Your task to perform on an android device: turn on location history Image 0: 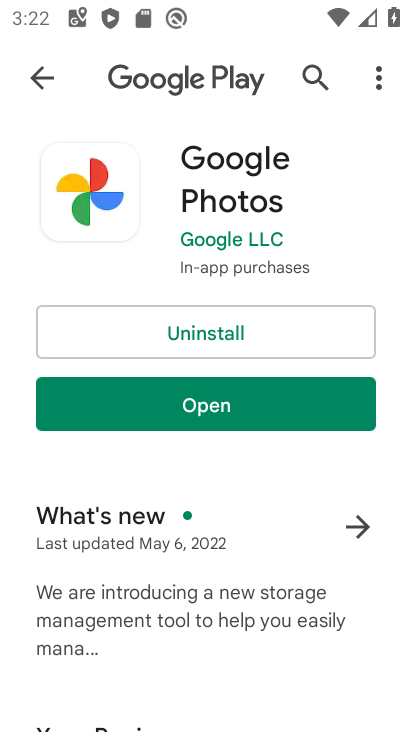
Step 0: press home button
Your task to perform on an android device: turn on location history Image 1: 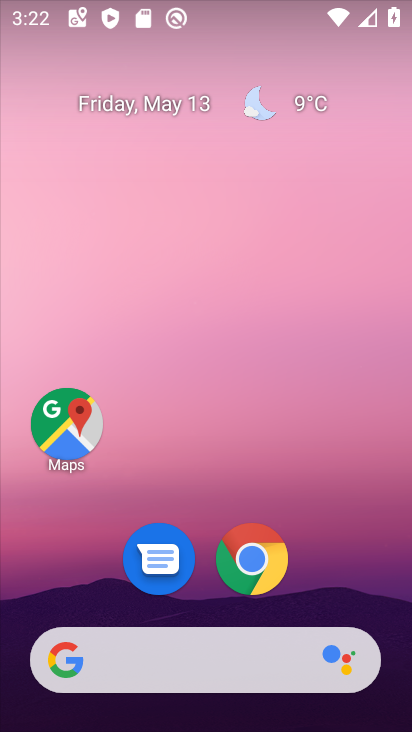
Step 1: click (65, 425)
Your task to perform on an android device: turn on location history Image 2: 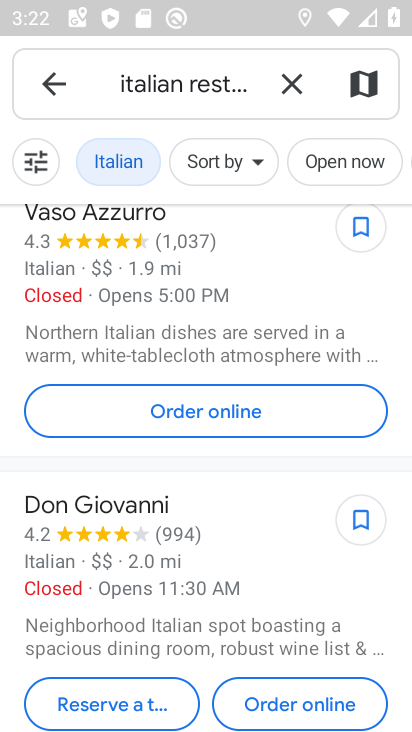
Step 2: click (289, 84)
Your task to perform on an android device: turn on location history Image 3: 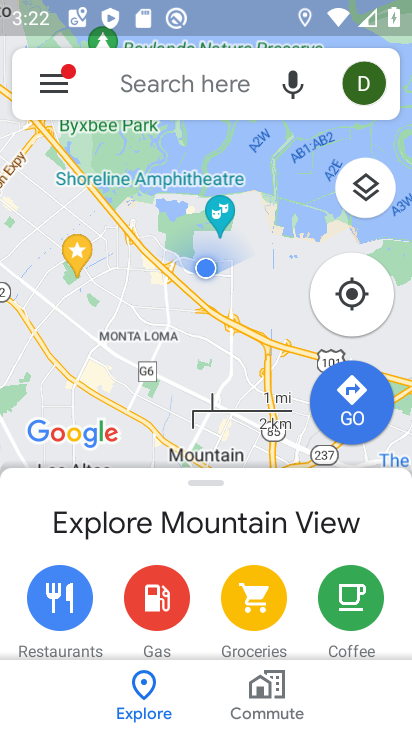
Step 3: click (53, 82)
Your task to perform on an android device: turn on location history Image 4: 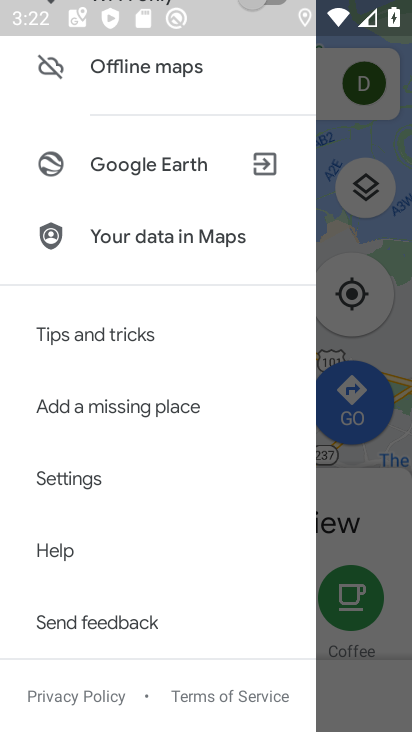
Step 4: click (99, 476)
Your task to perform on an android device: turn on location history Image 5: 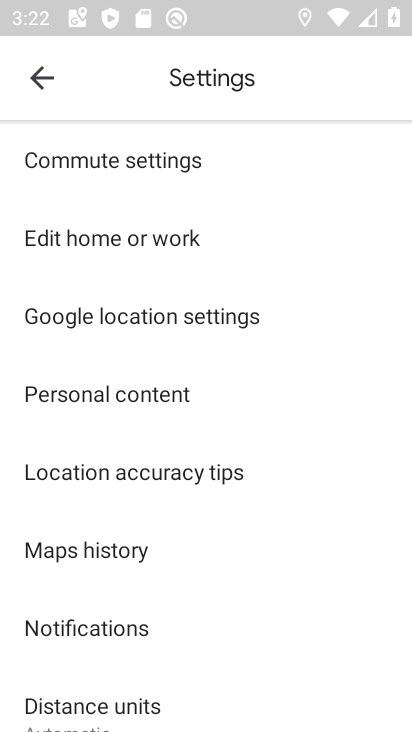
Step 5: click (103, 389)
Your task to perform on an android device: turn on location history Image 6: 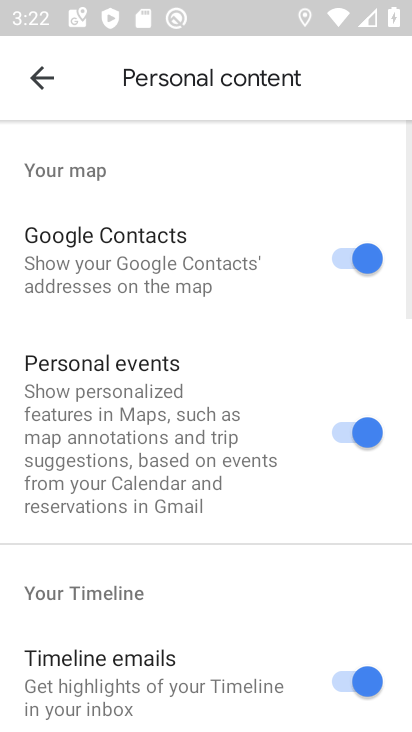
Step 6: task complete